Your task to perform on an android device: see tabs open on other devices in the chrome app Image 0: 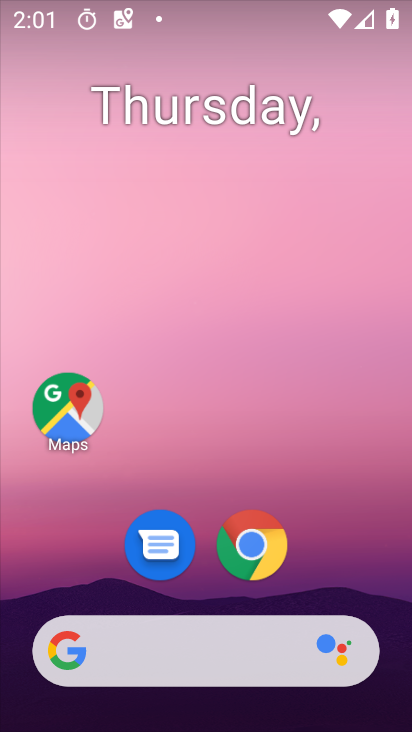
Step 0: click (251, 544)
Your task to perform on an android device: see tabs open on other devices in the chrome app Image 1: 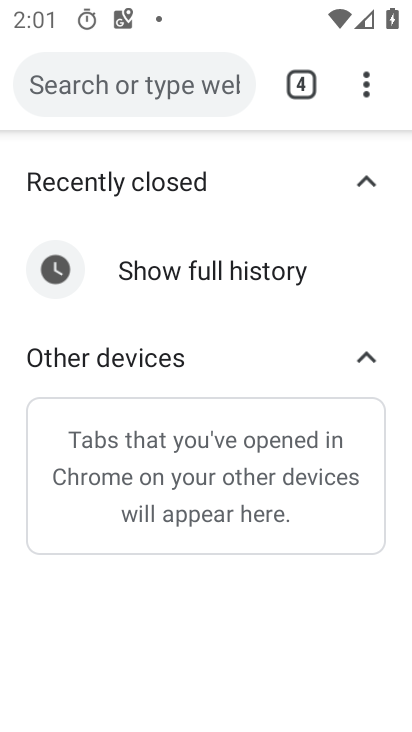
Step 1: task complete